Your task to perform on an android device: uninstall "Google Home" Image 0: 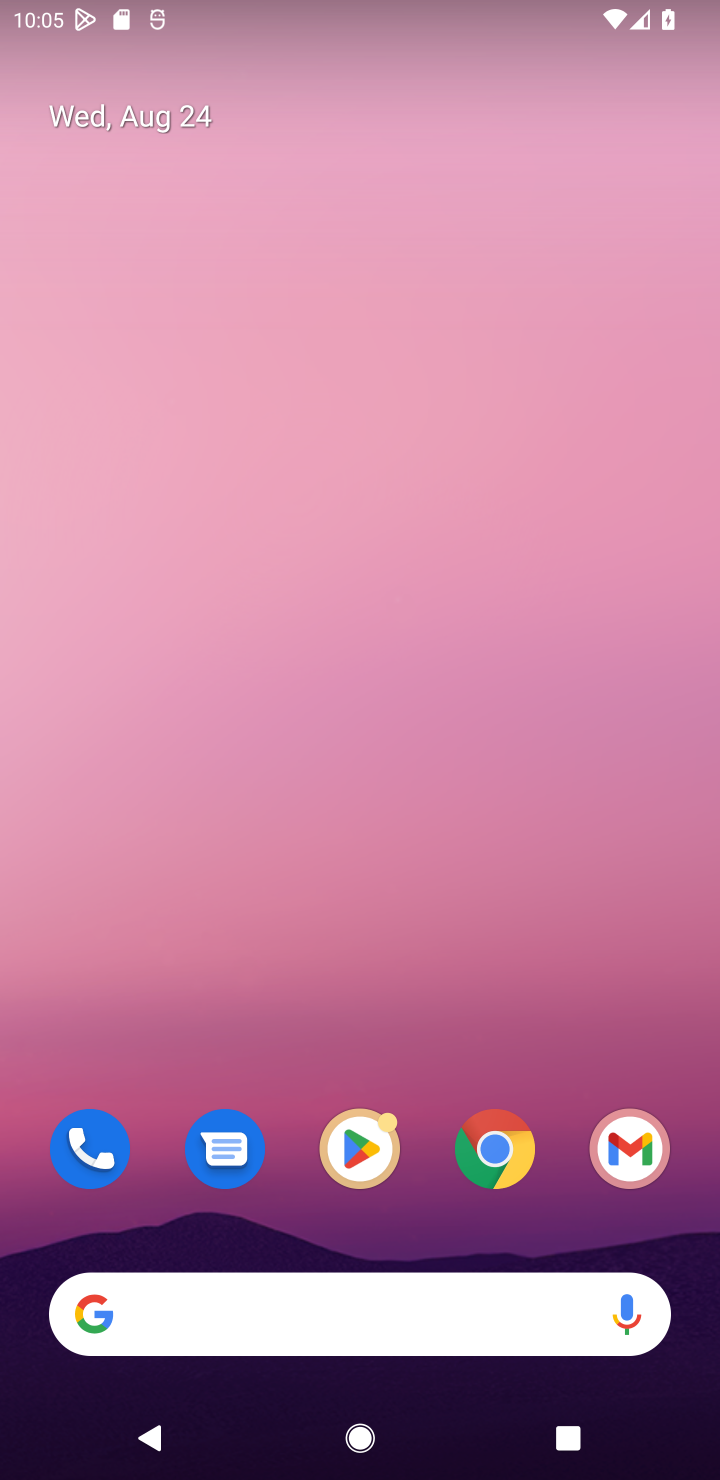
Step 0: drag from (241, 1136) to (330, 149)
Your task to perform on an android device: uninstall "Google Home" Image 1: 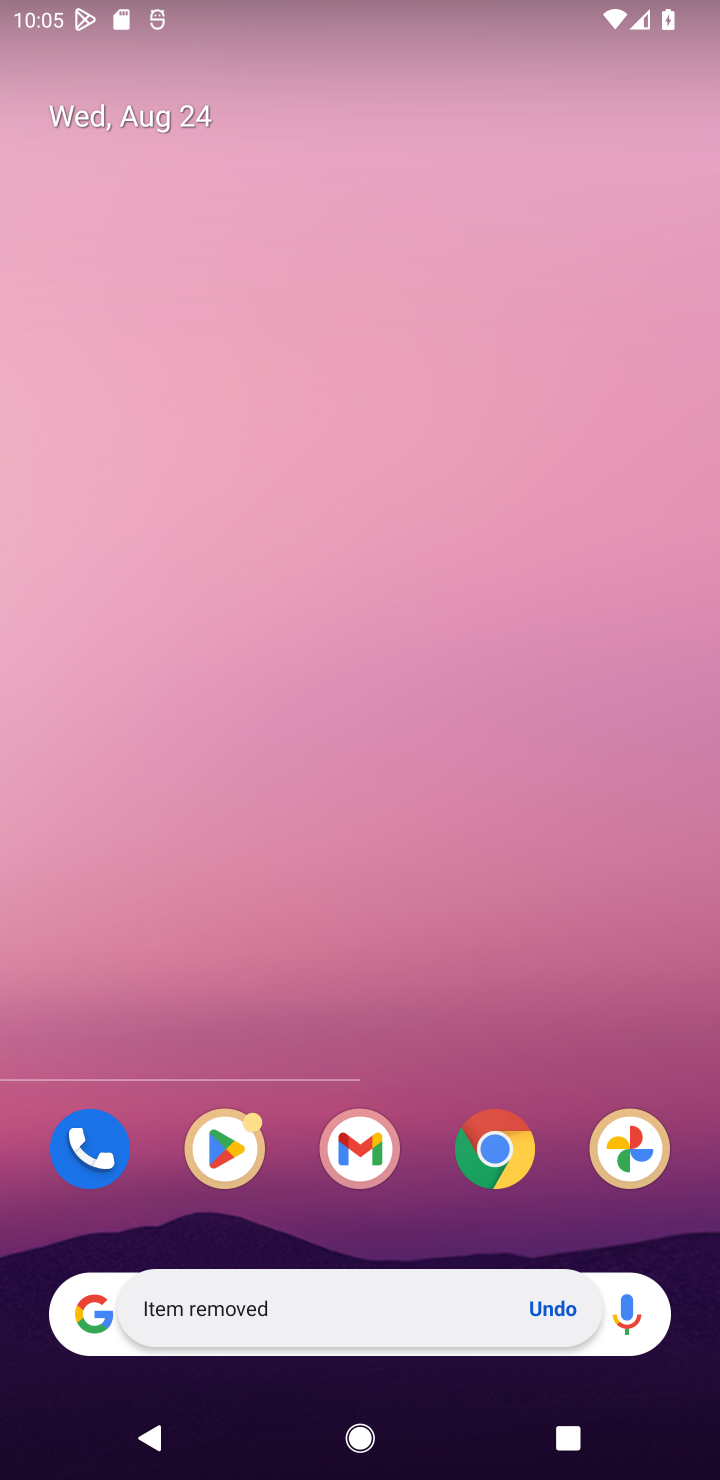
Step 1: click (569, 751)
Your task to perform on an android device: uninstall "Google Home" Image 2: 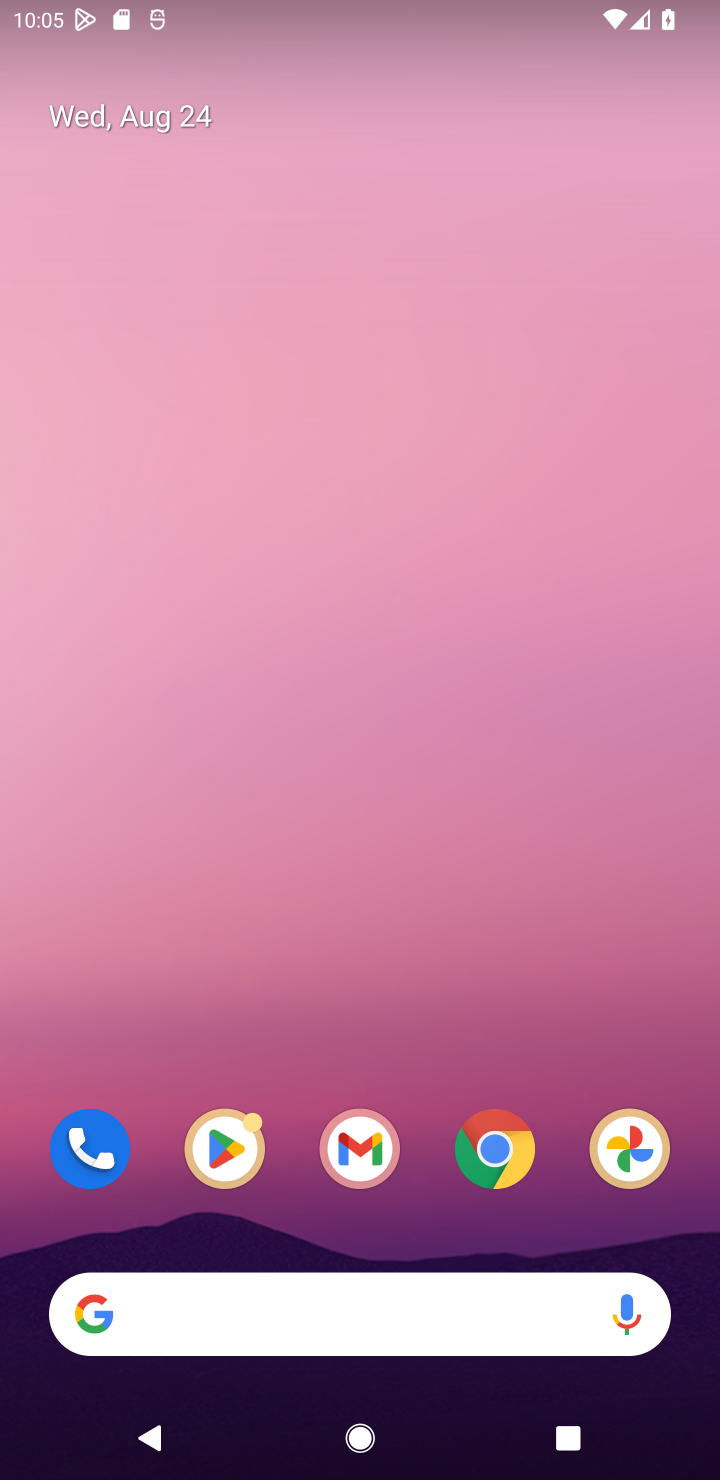
Step 2: drag from (495, 1167) to (619, 94)
Your task to perform on an android device: uninstall "Google Home" Image 3: 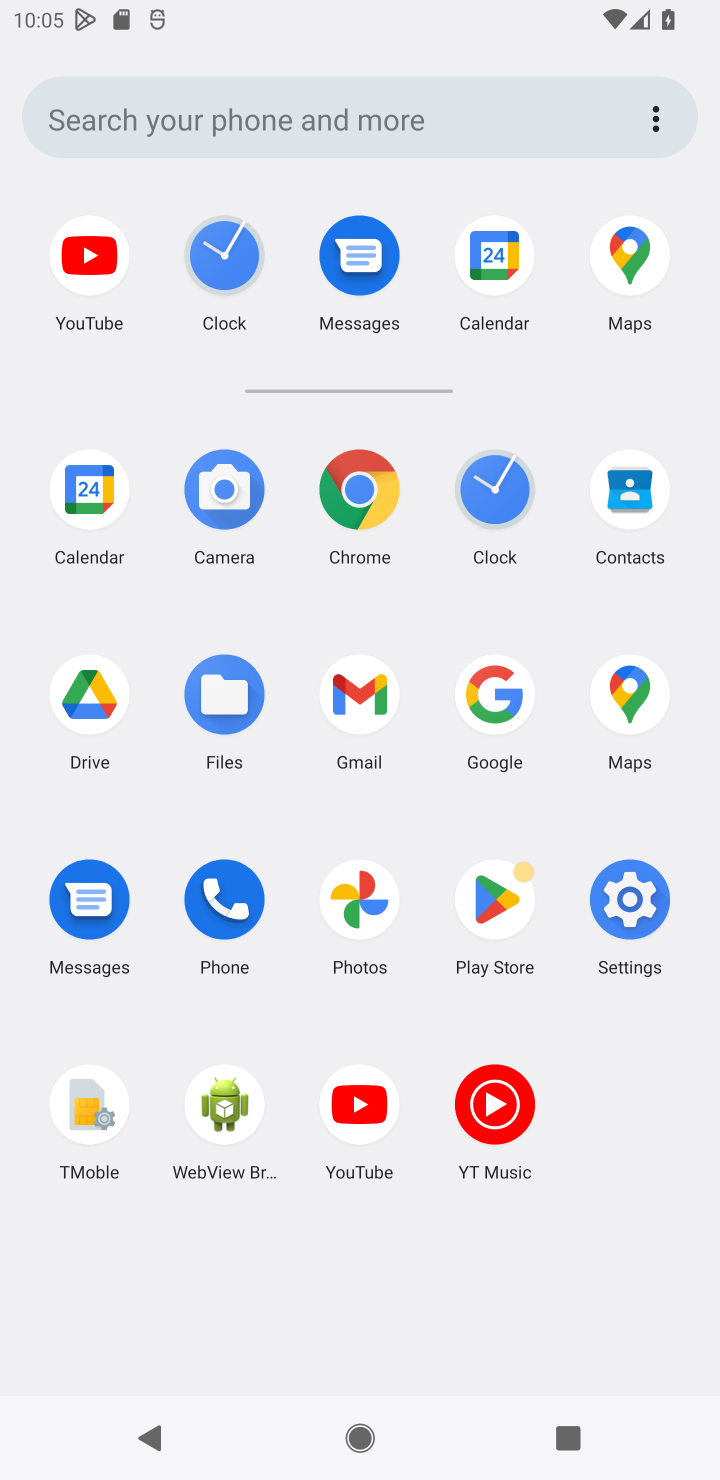
Step 3: click (501, 881)
Your task to perform on an android device: uninstall "Google Home" Image 4: 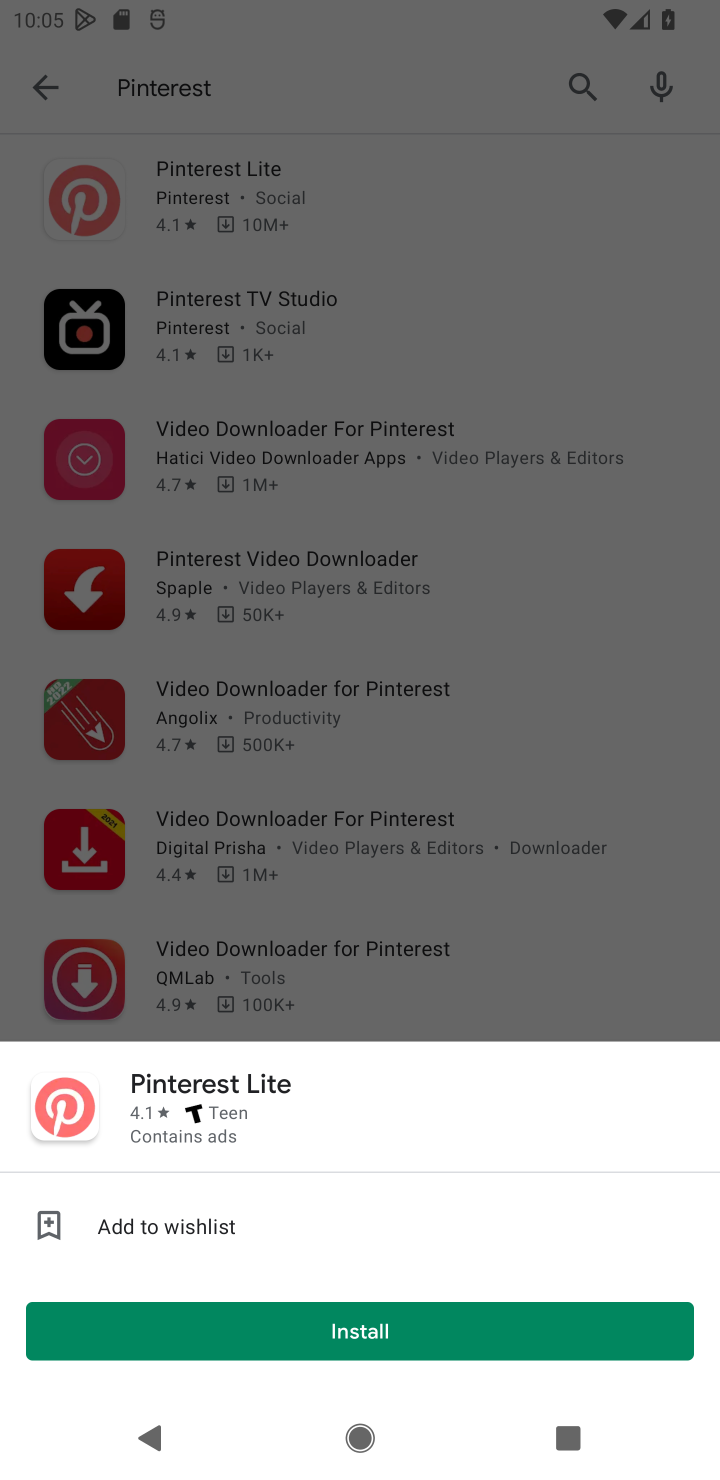
Step 4: press back button
Your task to perform on an android device: uninstall "Google Home" Image 5: 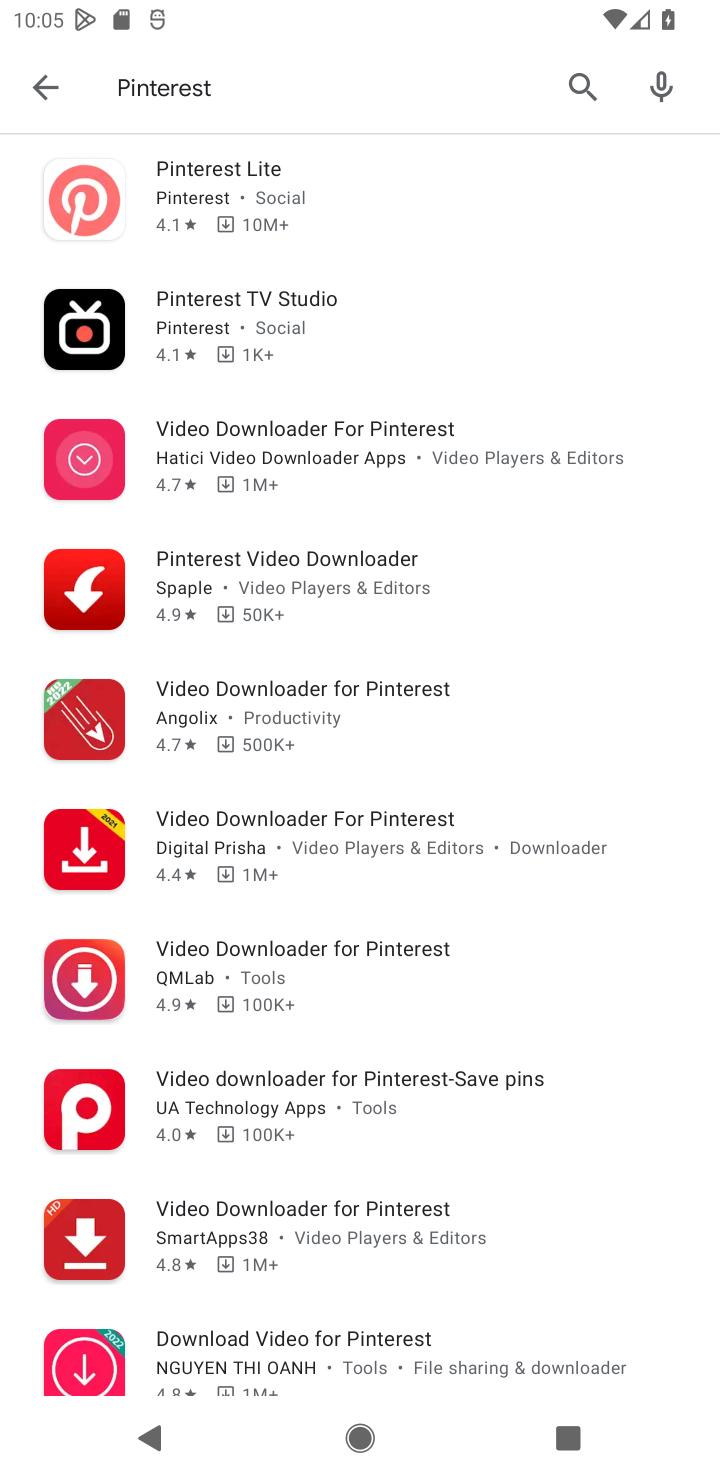
Step 5: press back button
Your task to perform on an android device: uninstall "Google Home" Image 6: 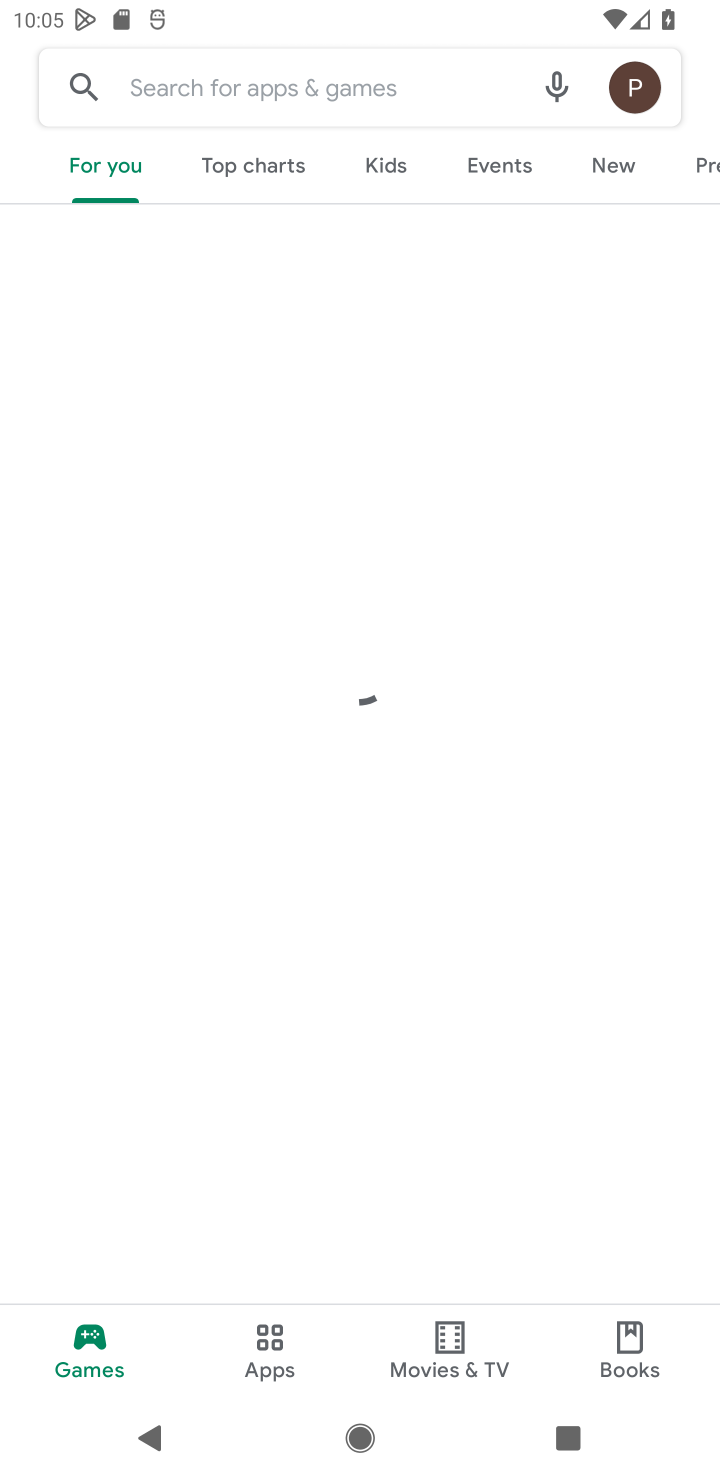
Step 6: click (207, 80)
Your task to perform on an android device: uninstall "Google Home" Image 7: 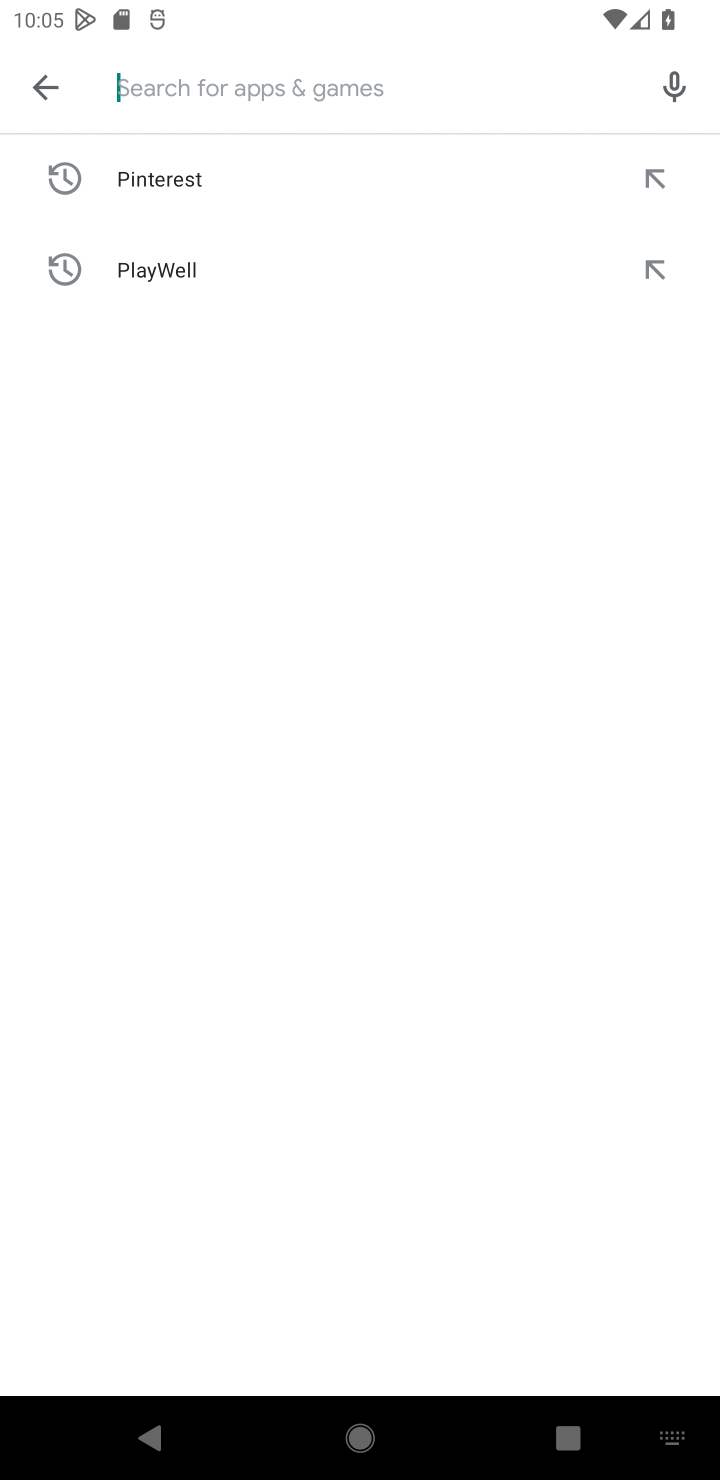
Step 7: type "Google Home"
Your task to perform on an android device: uninstall "Google Home" Image 8: 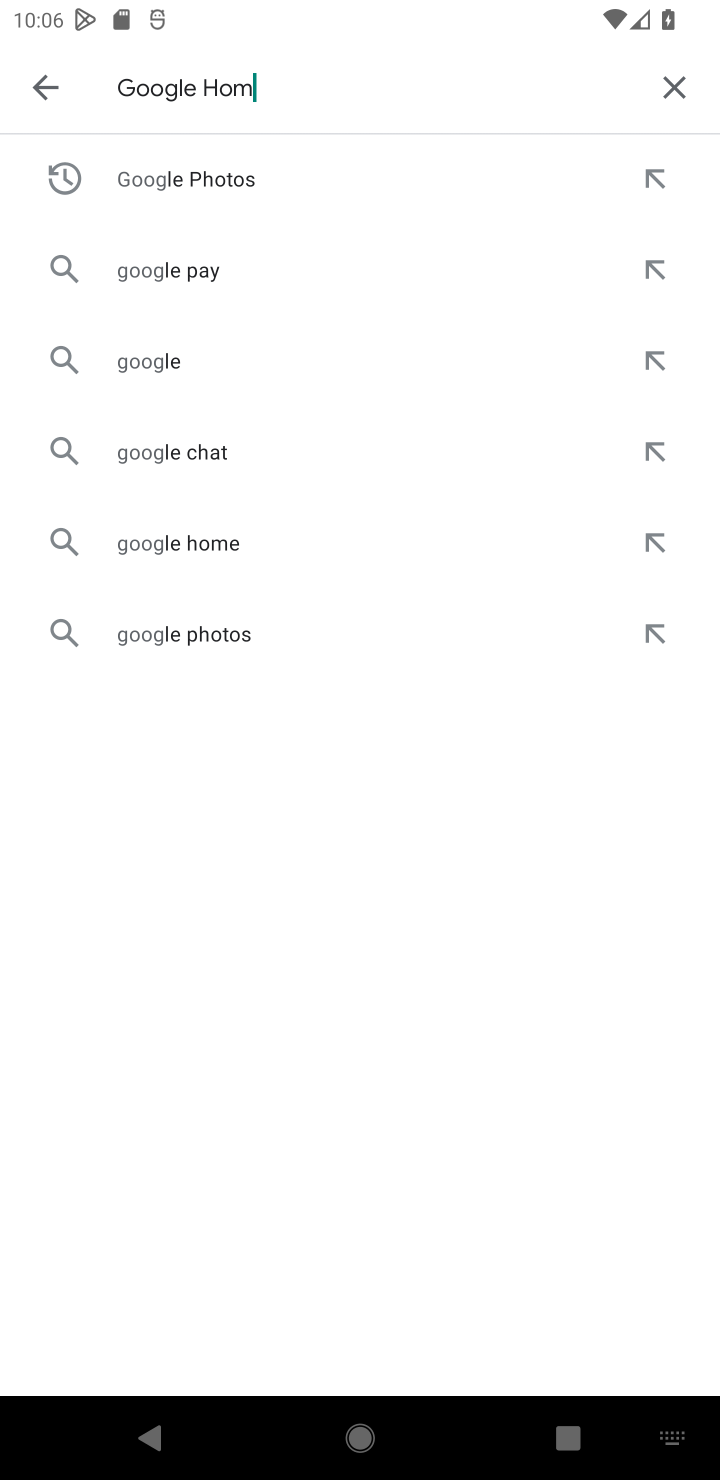
Step 8: press enter
Your task to perform on an android device: uninstall "Google Home" Image 9: 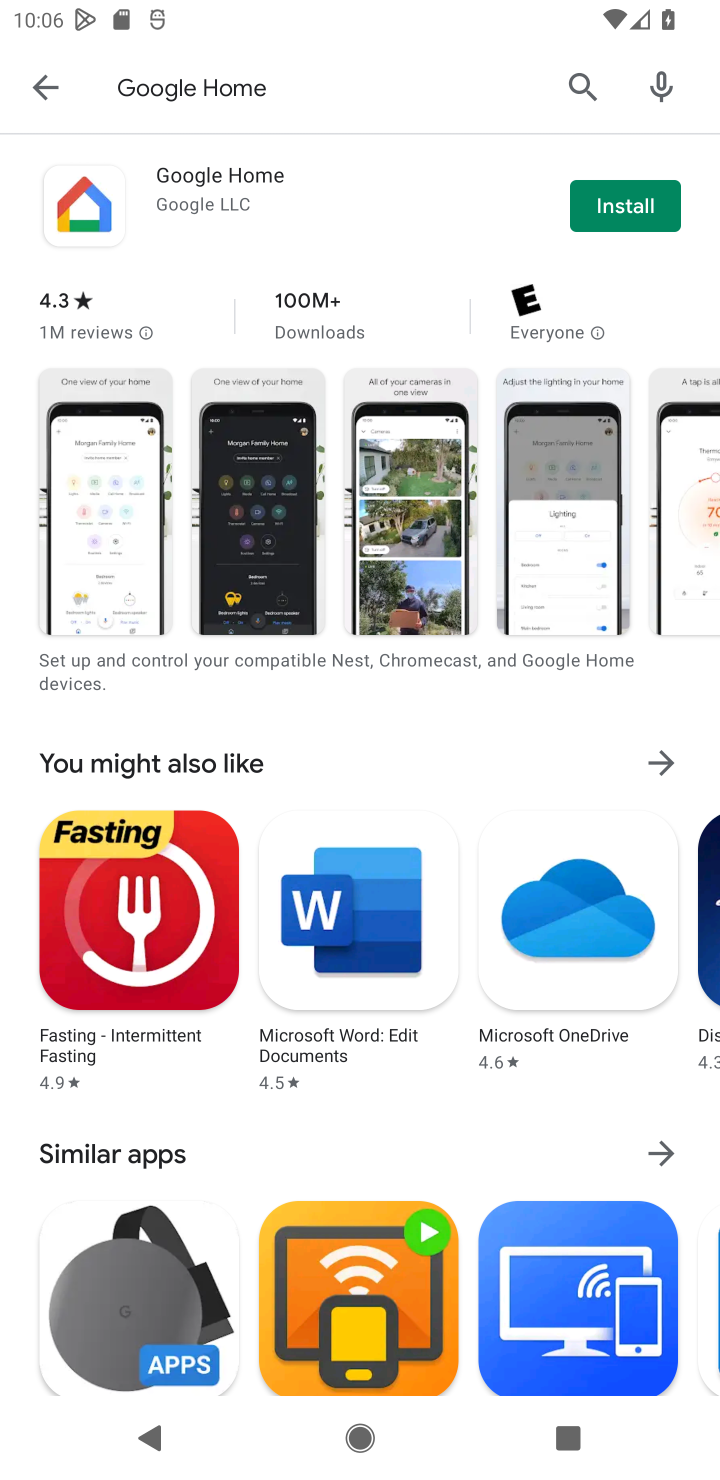
Step 9: task complete